Your task to perform on an android device: open wifi settings Image 0: 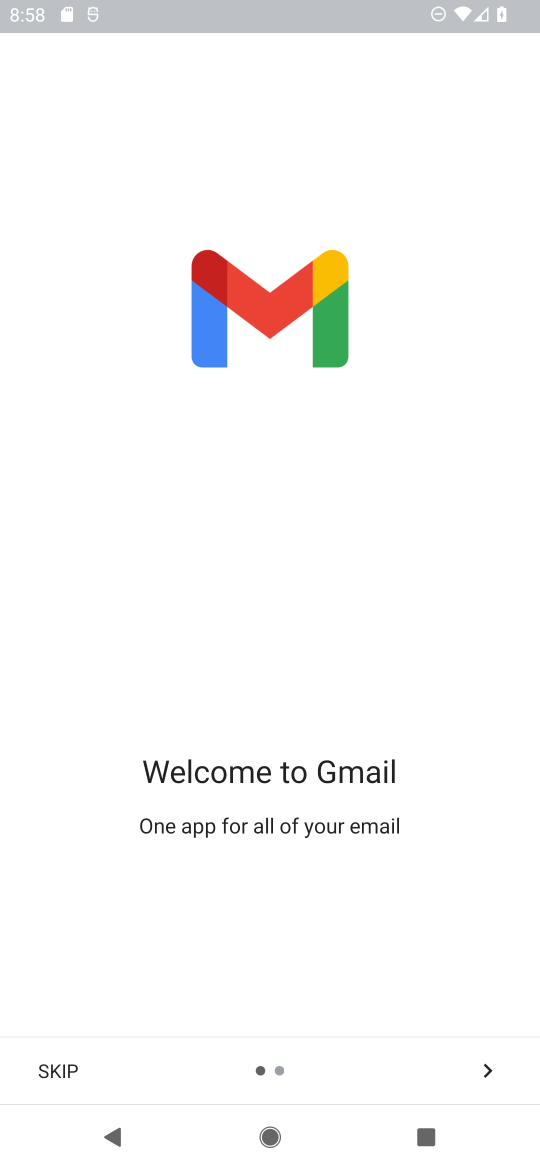
Step 0: press back button
Your task to perform on an android device: open wifi settings Image 1: 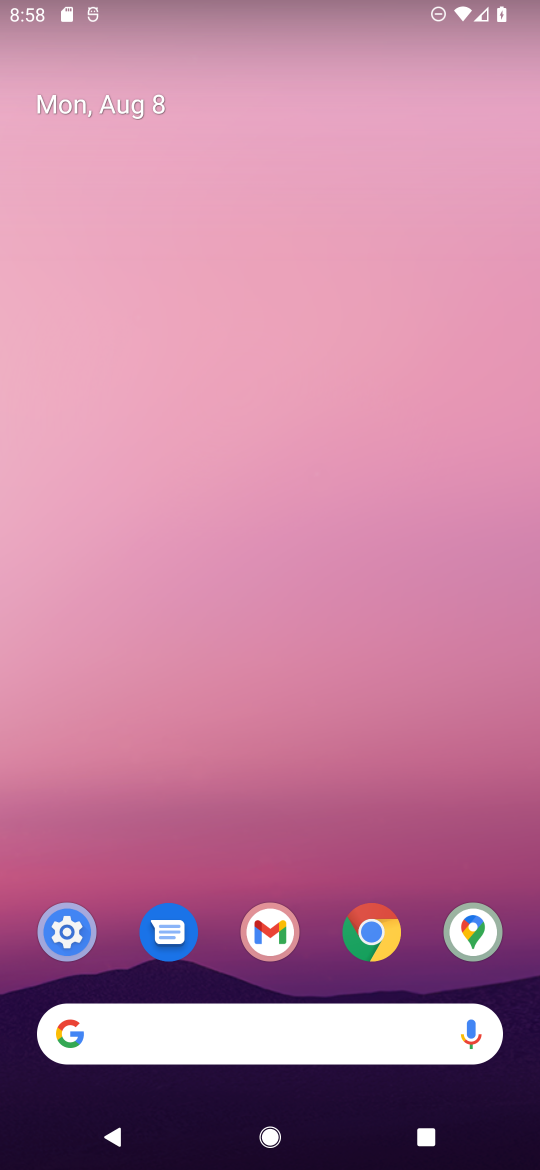
Step 1: drag from (72, 3) to (248, 1014)
Your task to perform on an android device: open wifi settings Image 2: 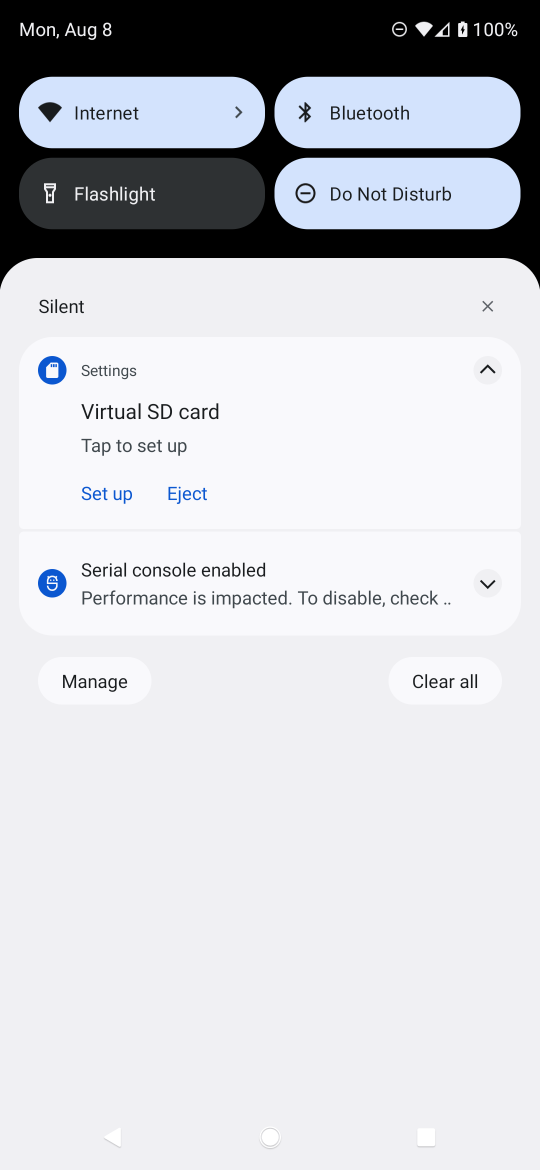
Step 2: click (132, 131)
Your task to perform on an android device: open wifi settings Image 3: 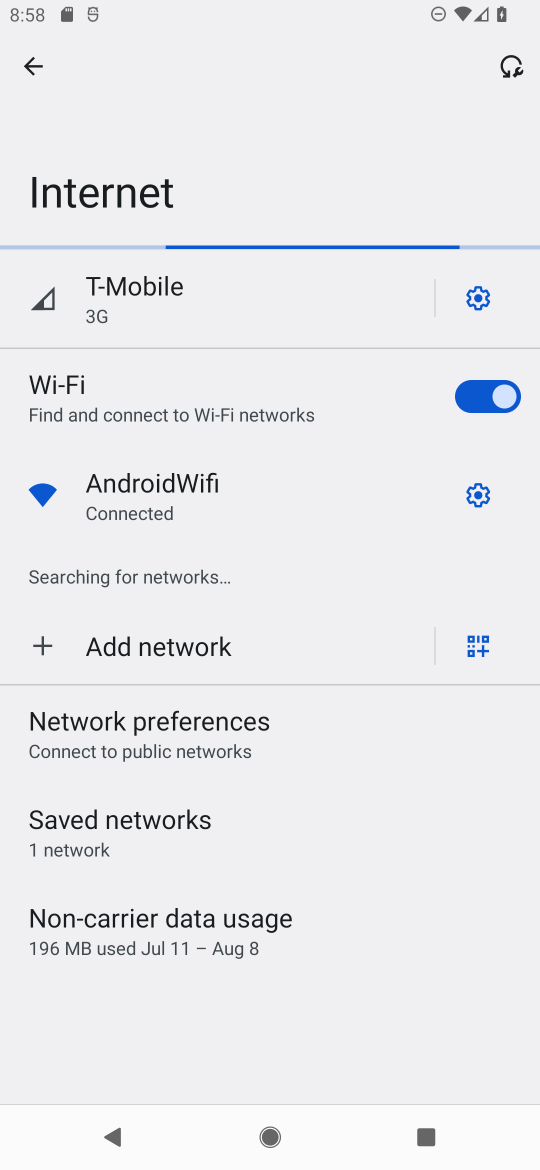
Step 3: task complete